Your task to perform on an android device: allow cookies in the chrome app Image 0: 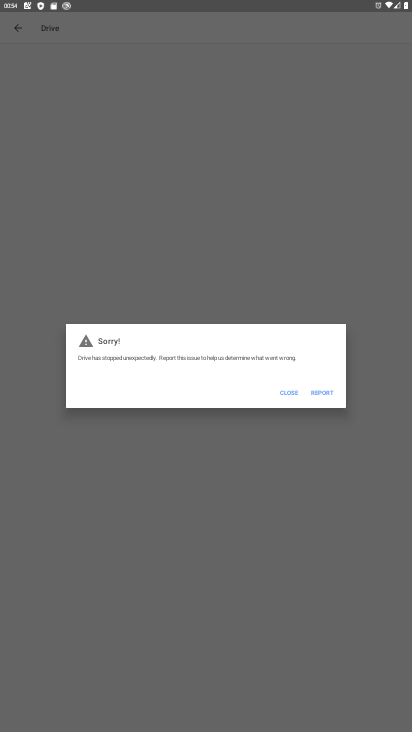
Step 0: press home button
Your task to perform on an android device: allow cookies in the chrome app Image 1: 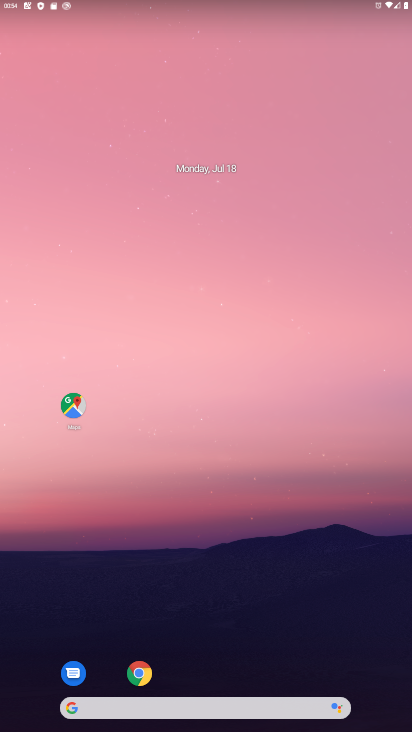
Step 1: click (152, 678)
Your task to perform on an android device: allow cookies in the chrome app Image 2: 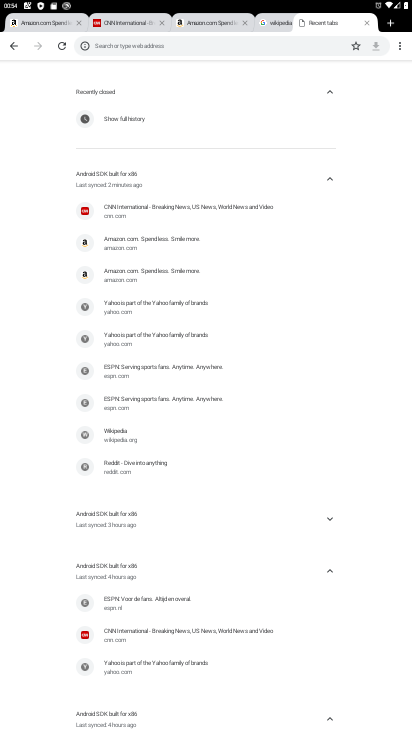
Step 2: task complete